Your task to perform on an android device: Find coffee shops on Maps Image 0: 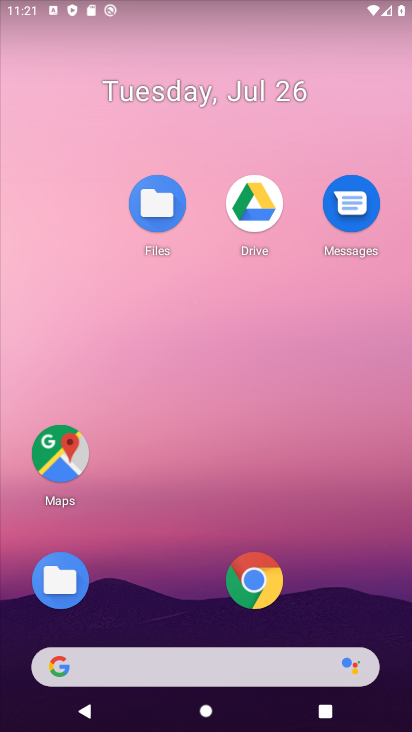
Step 0: click (38, 456)
Your task to perform on an android device: Find coffee shops on Maps Image 1: 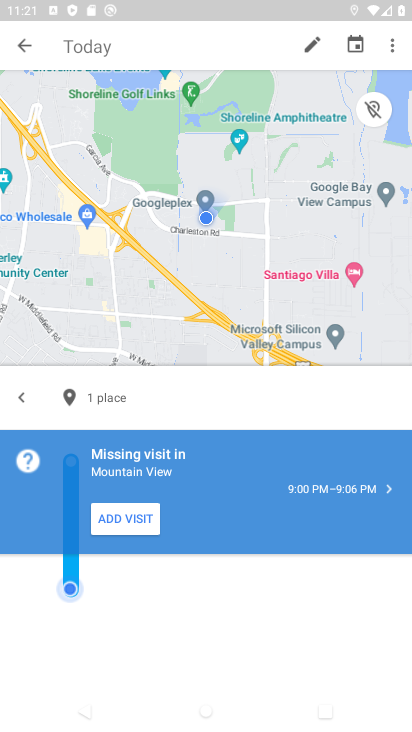
Step 1: click (25, 50)
Your task to perform on an android device: Find coffee shops on Maps Image 2: 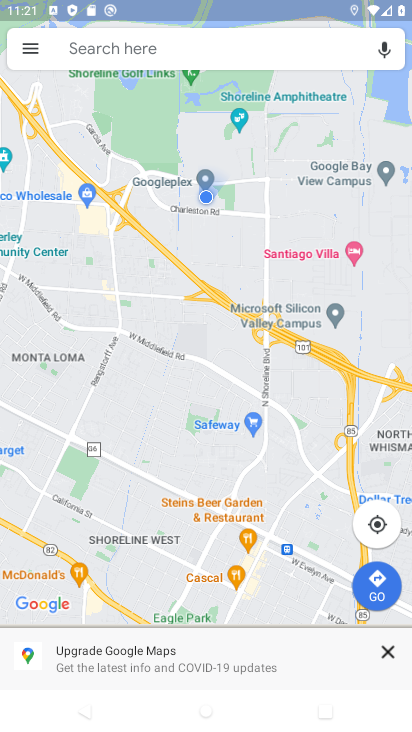
Step 2: click (168, 61)
Your task to perform on an android device: Find coffee shops on Maps Image 3: 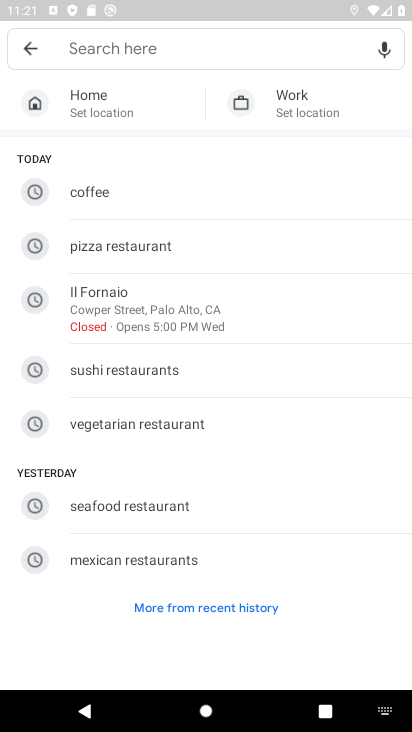
Step 3: click (155, 178)
Your task to perform on an android device: Find coffee shops on Maps Image 4: 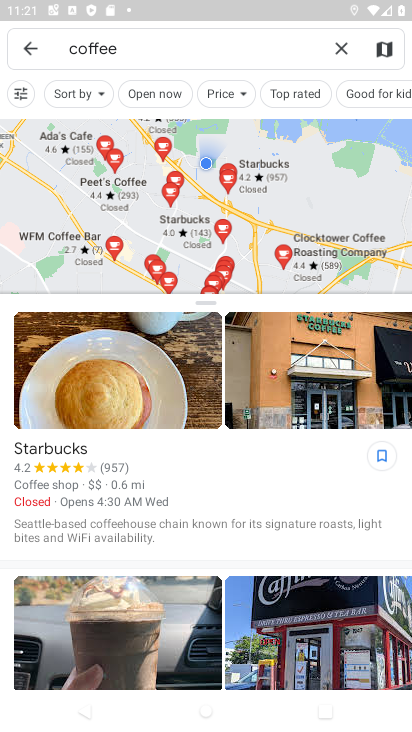
Step 4: task complete